Your task to perform on an android device: Open Youtube and go to the subscriptions tab Image 0: 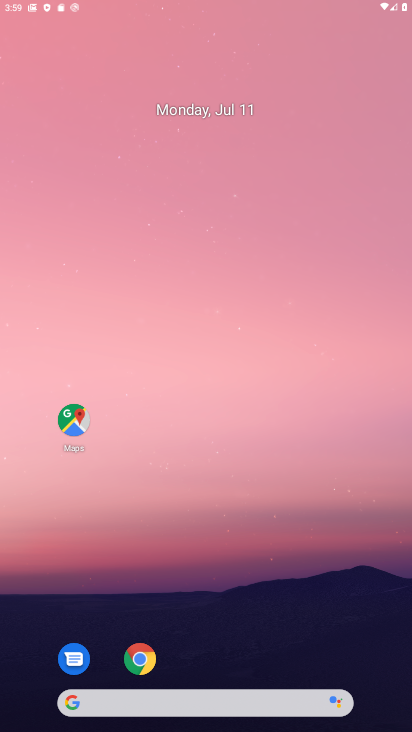
Step 0: click (136, 645)
Your task to perform on an android device: Open Youtube and go to the subscriptions tab Image 1: 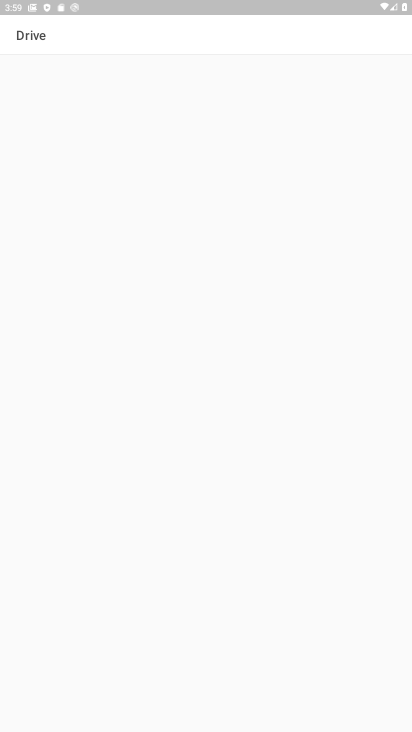
Step 1: drag from (303, 5) to (327, 530)
Your task to perform on an android device: Open Youtube and go to the subscriptions tab Image 2: 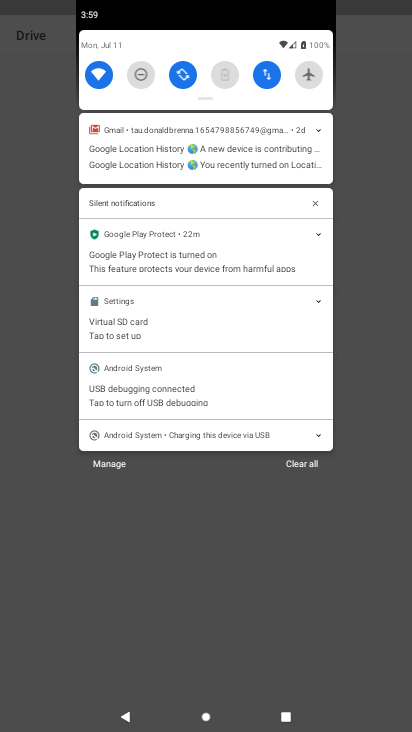
Step 2: press home button
Your task to perform on an android device: Open Youtube and go to the subscriptions tab Image 3: 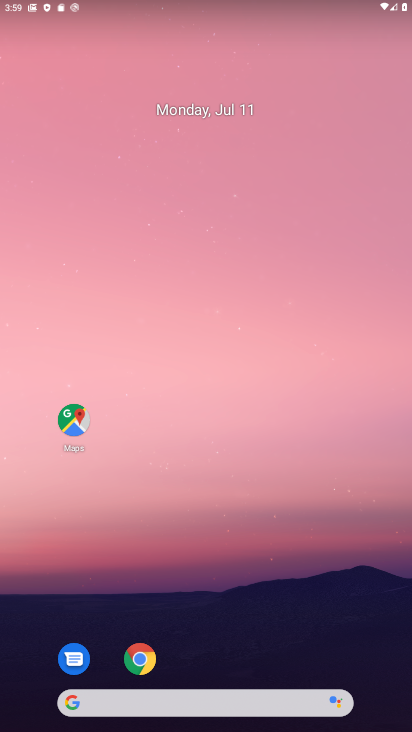
Step 3: drag from (208, 633) to (252, 118)
Your task to perform on an android device: Open Youtube and go to the subscriptions tab Image 4: 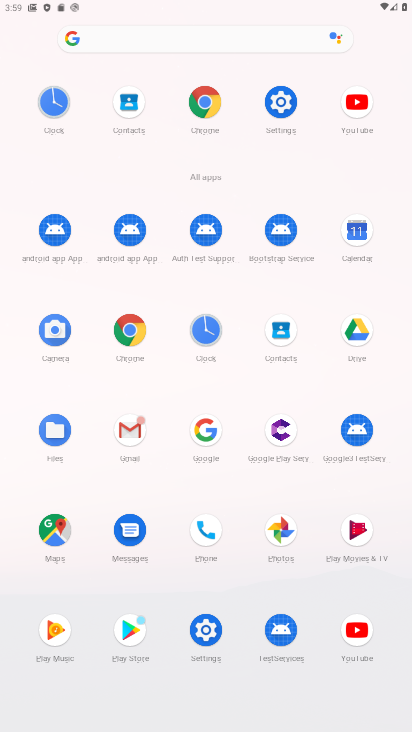
Step 4: click (366, 629)
Your task to perform on an android device: Open Youtube and go to the subscriptions tab Image 5: 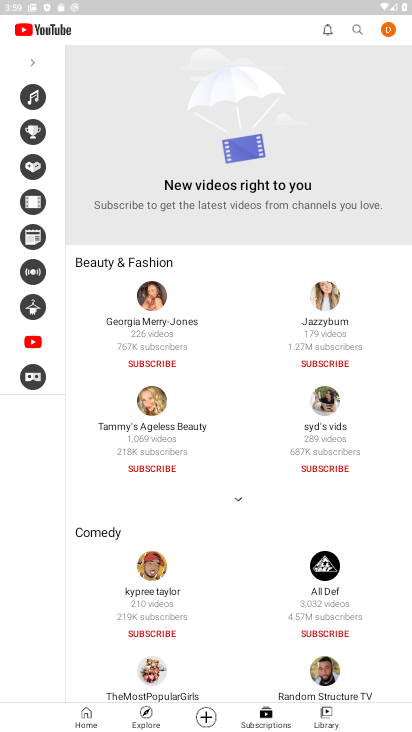
Step 5: task complete